Your task to perform on an android device: stop showing notifications on the lock screen Image 0: 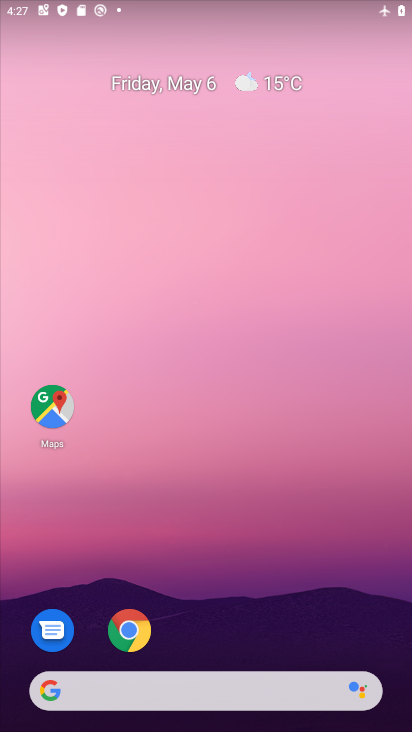
Step 0: drag from (227, 619) to (322, 80)
Your task to perform on an android device: stop showing notifications on the lock screen Image 1: 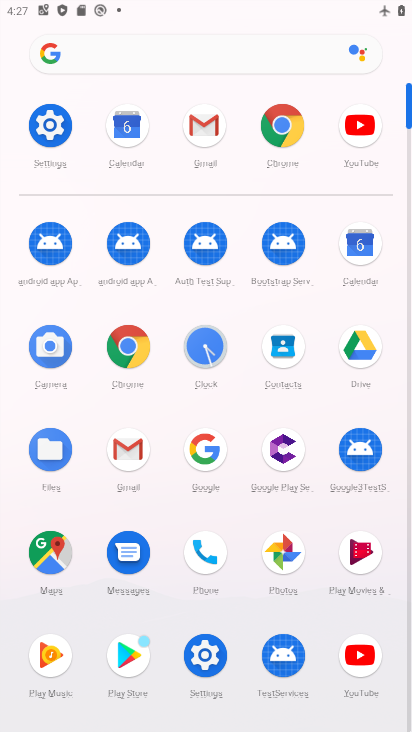
Step 1: click (51, 125)
Your task to perform on an android device: stop showing notifications on the lock screen Image 2: 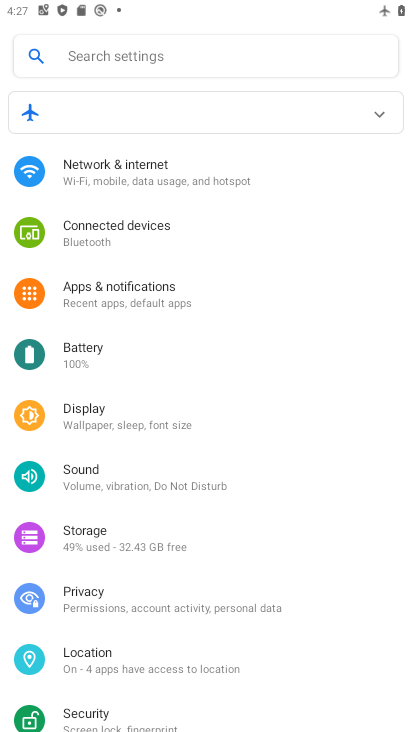
Step 2: click (139, 299)
Your task to perform on an android device: stop showing notifications on the lock screen Image 3: 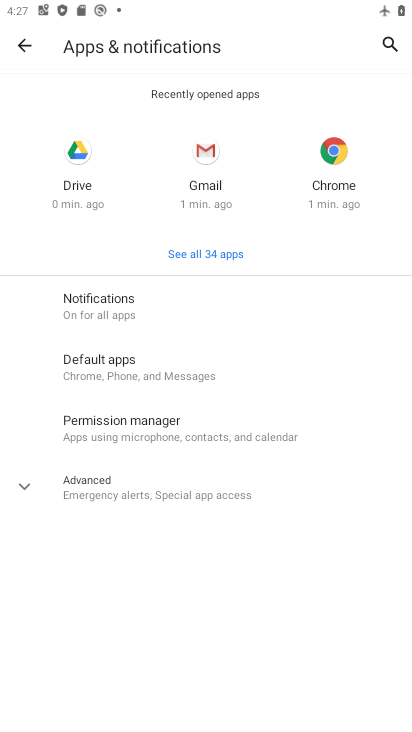
Step 3: click (125, 310)
Your task to perform on an android device: stop showing notifications on the lock screen Image 4: 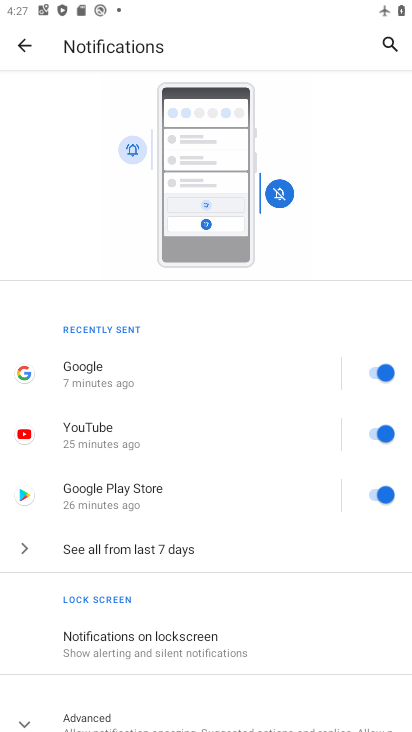
Step 4: click (179, 641)
Your task to perform on an android device: stop showing notifications on the lock screen Image 5: 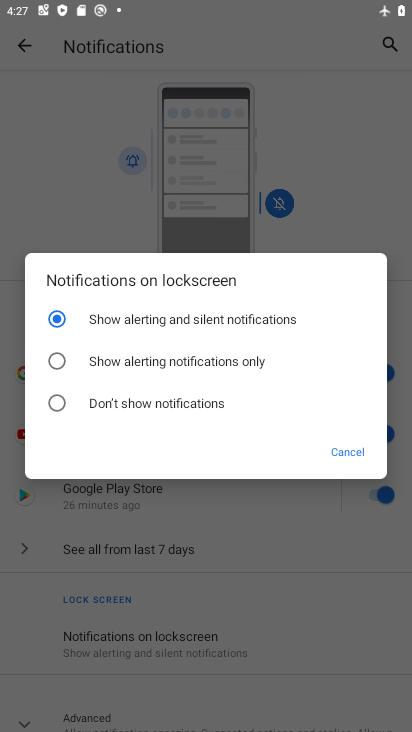
Step 5: click (57, 404)
Your task to perform on an android device: stop showing notifications on the lock screen Image 6: 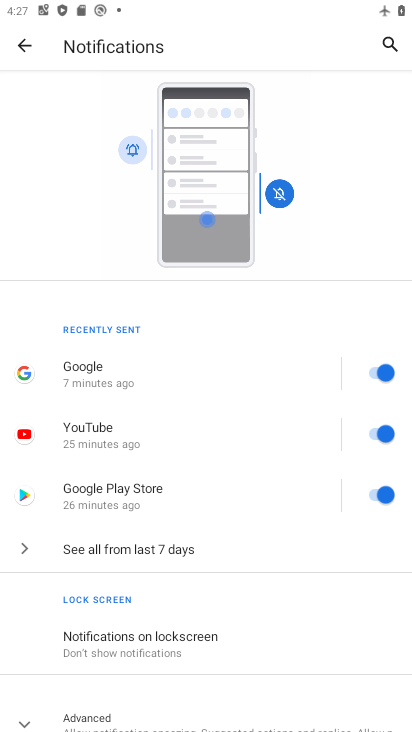
Step 6: task complete